Your task to perform on an android device: Open the calendar app, open the side menu, and click the "Day" option Image 0: 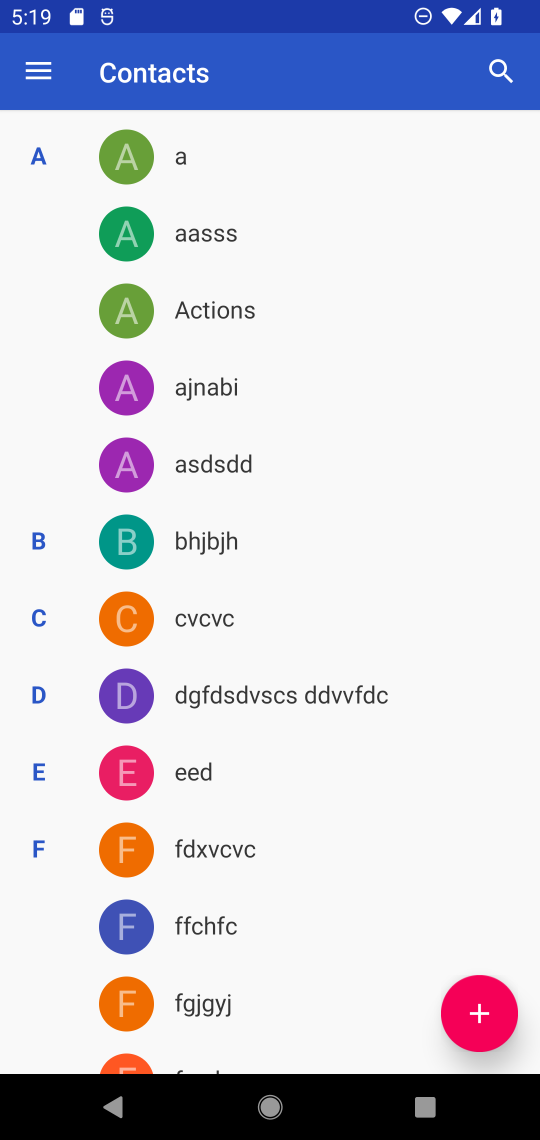
Step 0: press home button
Your task to perform on an android device: Open the calendar app, open the side menu, and click the "Day" option Image 1: 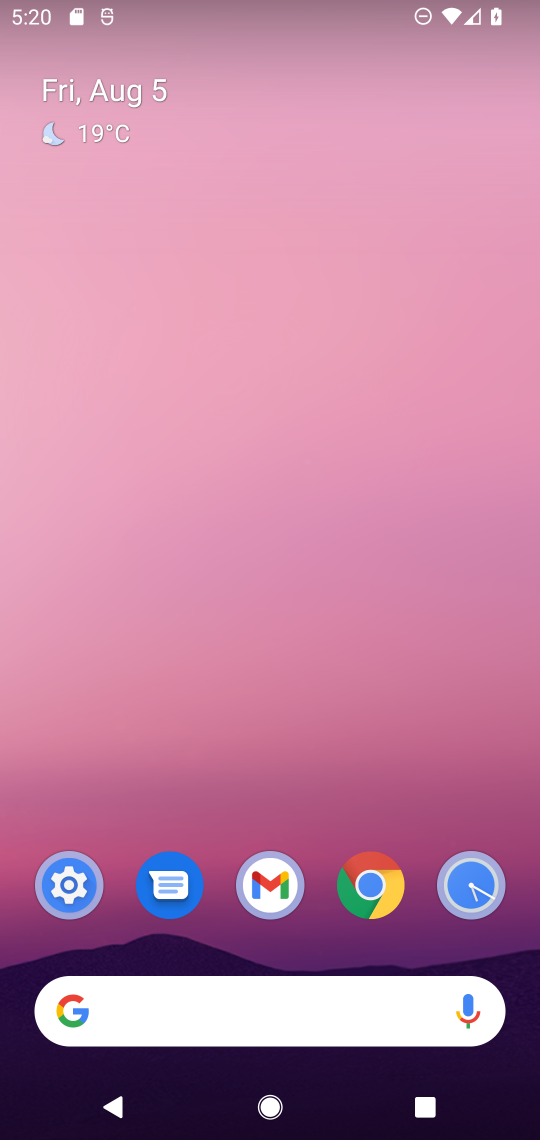
Step 1: drag from (314, 960) to (313, 173)
Your task to perform on an android device: Open the calendar app, open the side menu, and click the "Day" option Image 2: 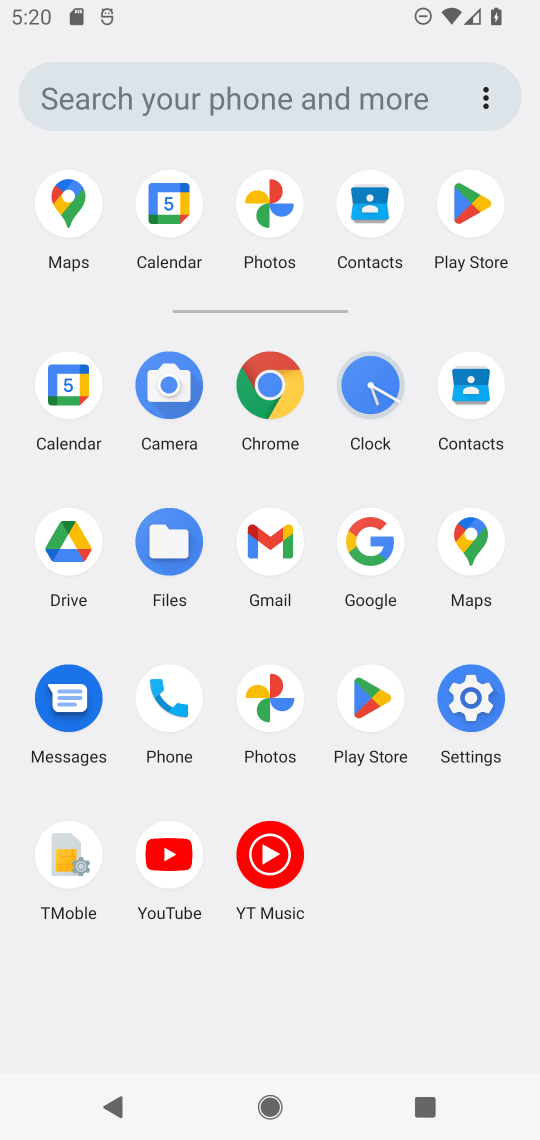
Step 2: click (81, 378)
Your task to perform on an android device: Open the calendar app, open the side menu, and click the "Day" option Image 3: 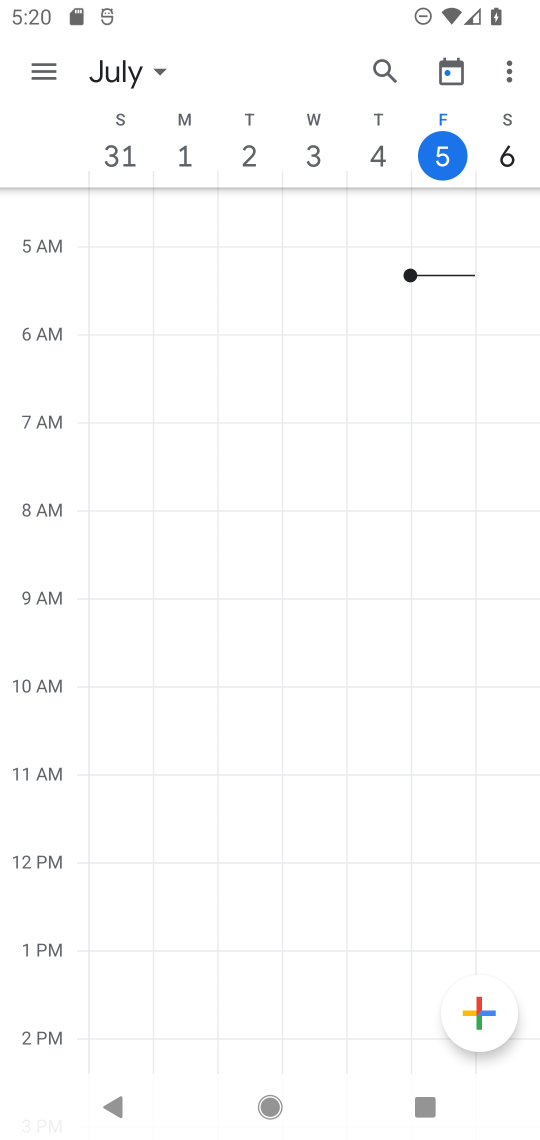
Step 3: click (45, 76)
Your task to perform on an android device: Open the calendar app, open the side menu, and click the "Day" option Image 4: 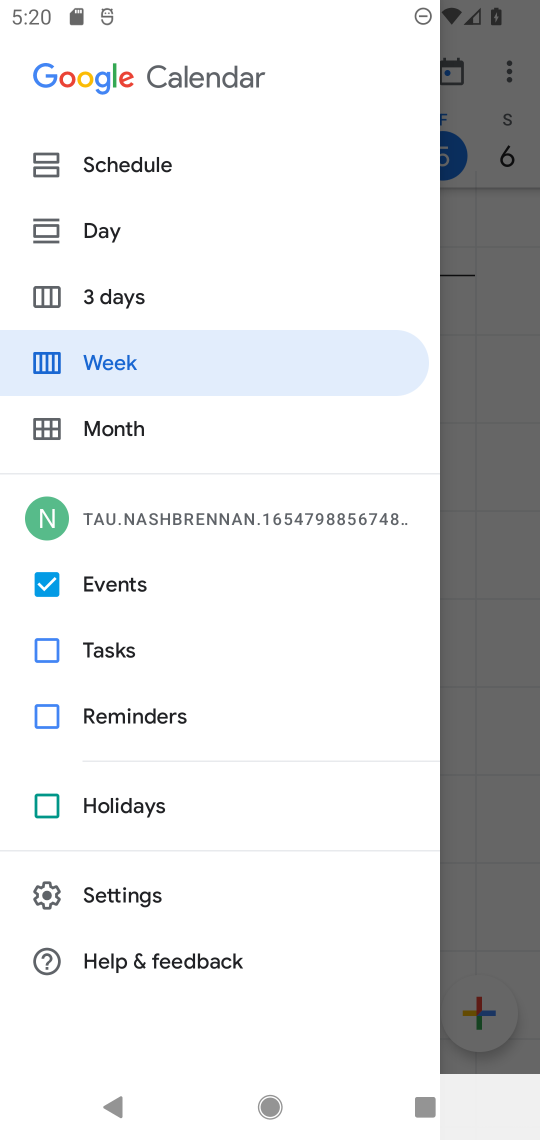
Step 4: click (98, 219)
Your task to perform on an android device: Open the calendar app, open the side menu, and click the "Day" option Image 5: 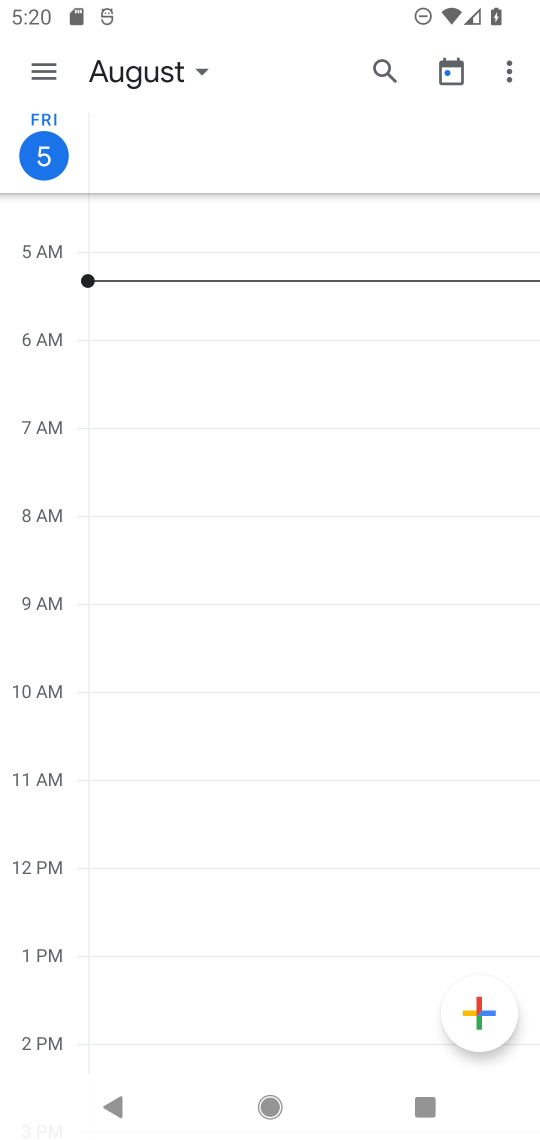
Step 5: task complete